Your task to perform on an android device: Open internet settings Image 0: 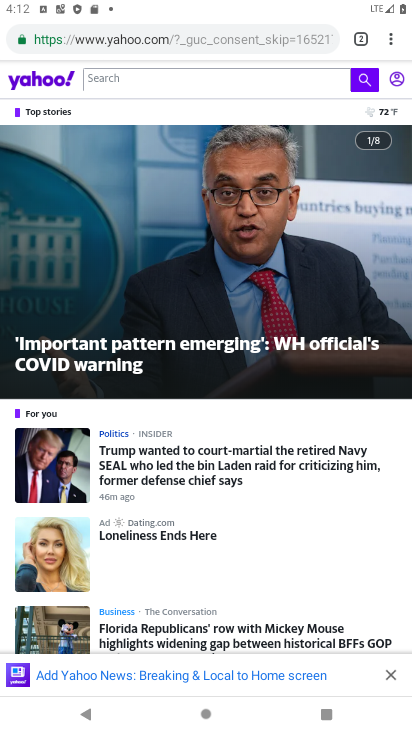
Step 0: click (391, 44)
Your task to perform on an android device: Open internet settings Image 1: 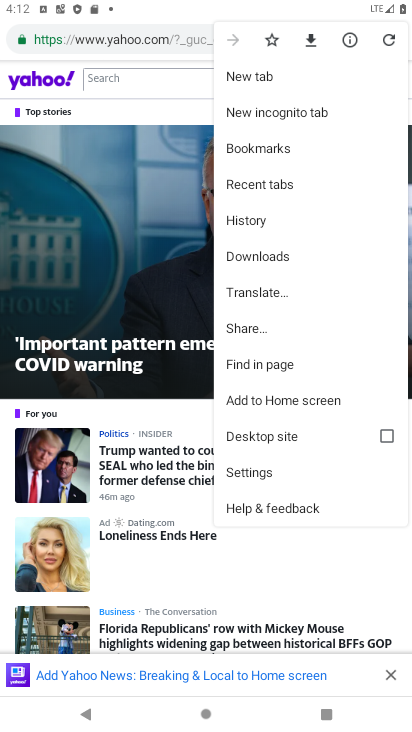
Step 1: click (258, 470)
Your task to perform on an android device: Open internet settings Image 2: 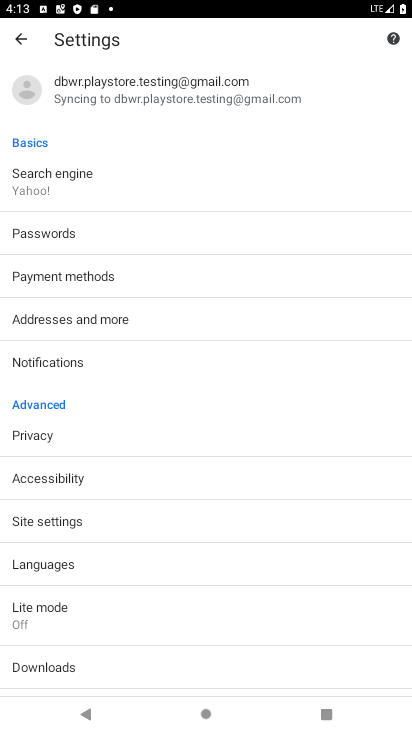
Step 2: press home button
Your task to perform on an android device: Open internet settings Image 3: 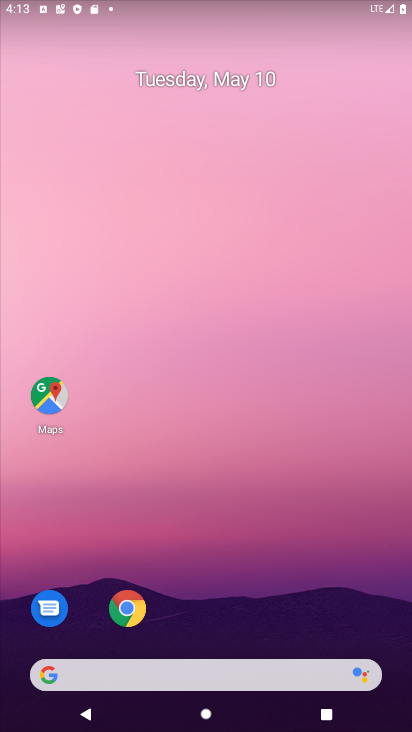
Step 3: drag from (286, 611) to (288, 77)
Your task to perform on an android device: Open internet settings Image 4: 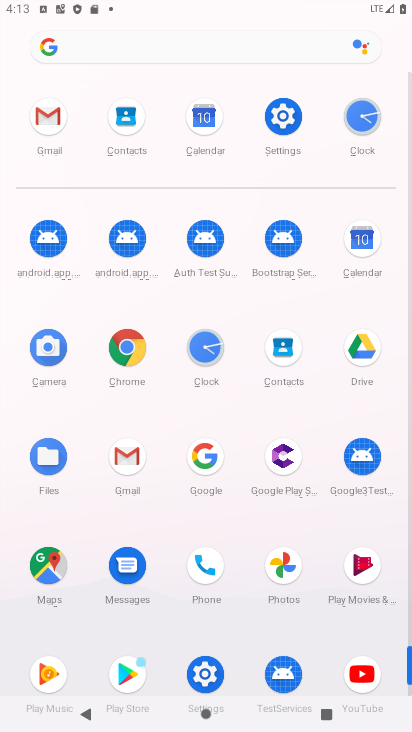
Step 4: click (203, 674)
Your task to perform on an android device: Open internet settings Image 5: 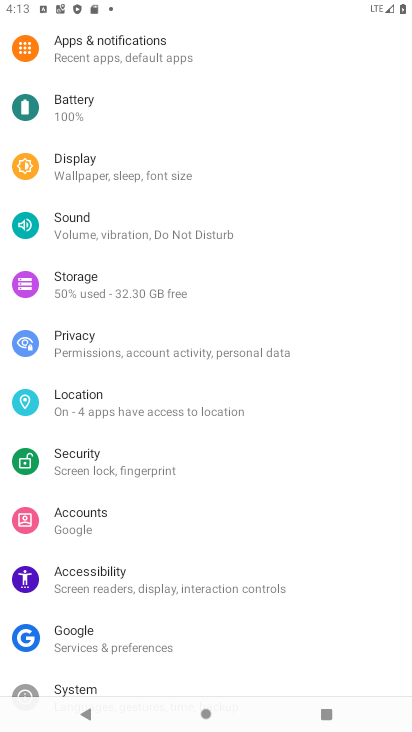
Step 5: drag from (240, 103) to (227, 437)
Your task to perform on an android device: Open internet settings Image 6: 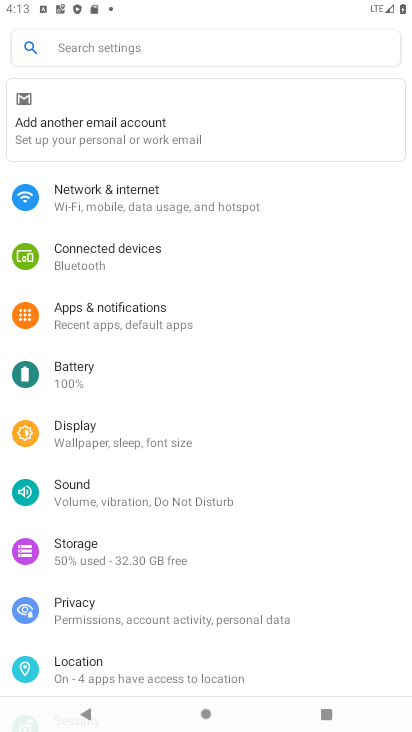
Step 6: click (72, 176)
Your task to perform on an android device: Open internet settings Image 7: 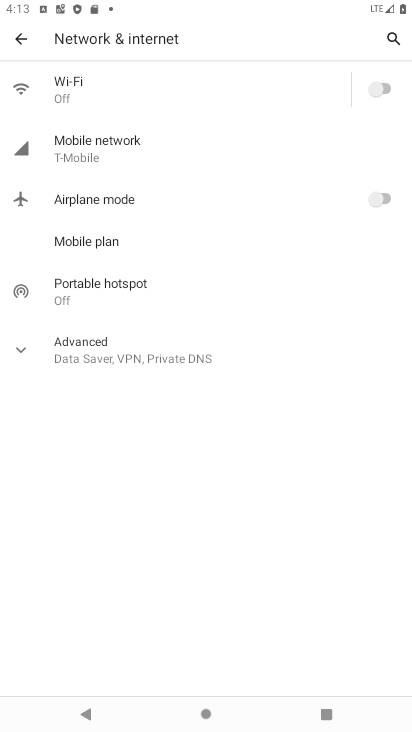
Step 7: click (83, 134)
Your task to perform on an android device: Open internet settings Image 8: 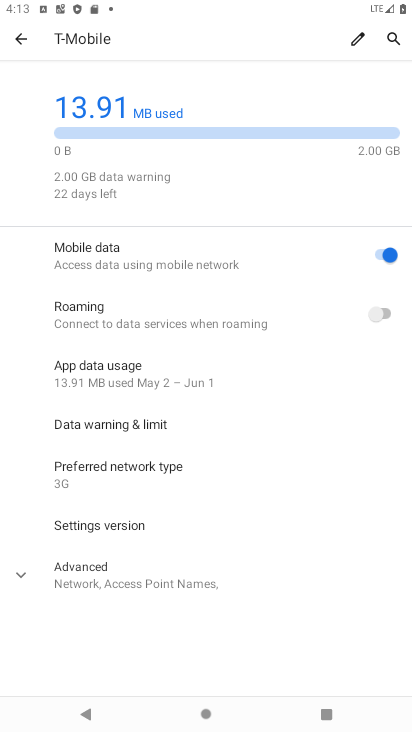
Step 8: task complete